Your task to perform on an android device: Open settings Image 0: 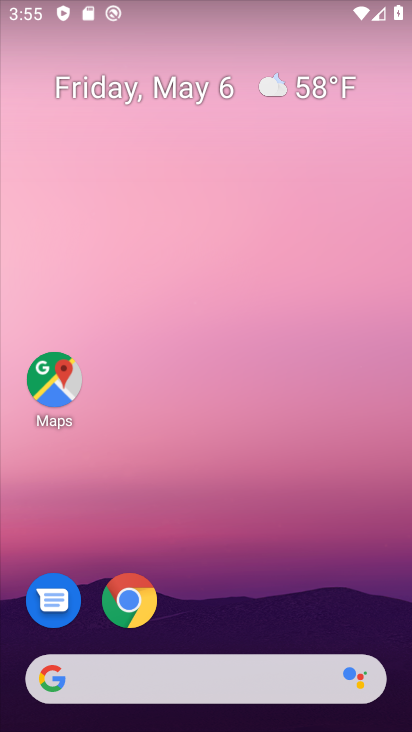
Step 0: drag from (198, 629) to (219, 170)
Your task to perform on an android device: Open settings Image 1: 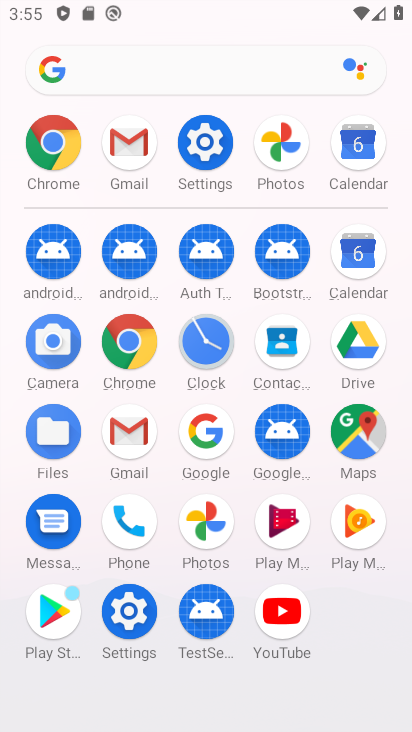
Step 1: click (198, 161)
Your task to perform on an android device: Open settings Image 2: 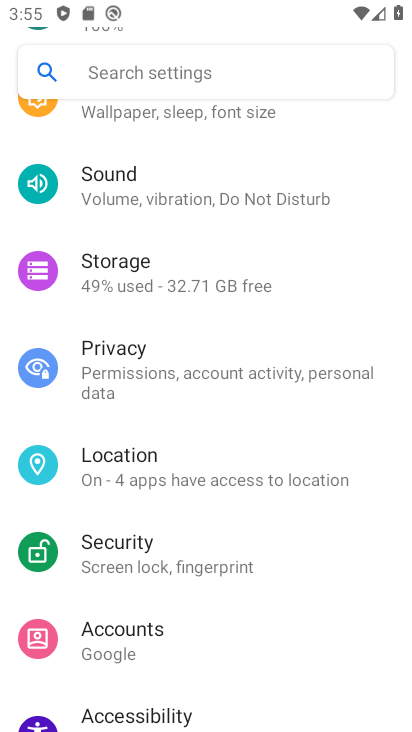
Step 2: task complete